Your task to perform on an android device: Search for "logitech g933" on ebay.com, select the first entry, and add it to the cart. Image 0: 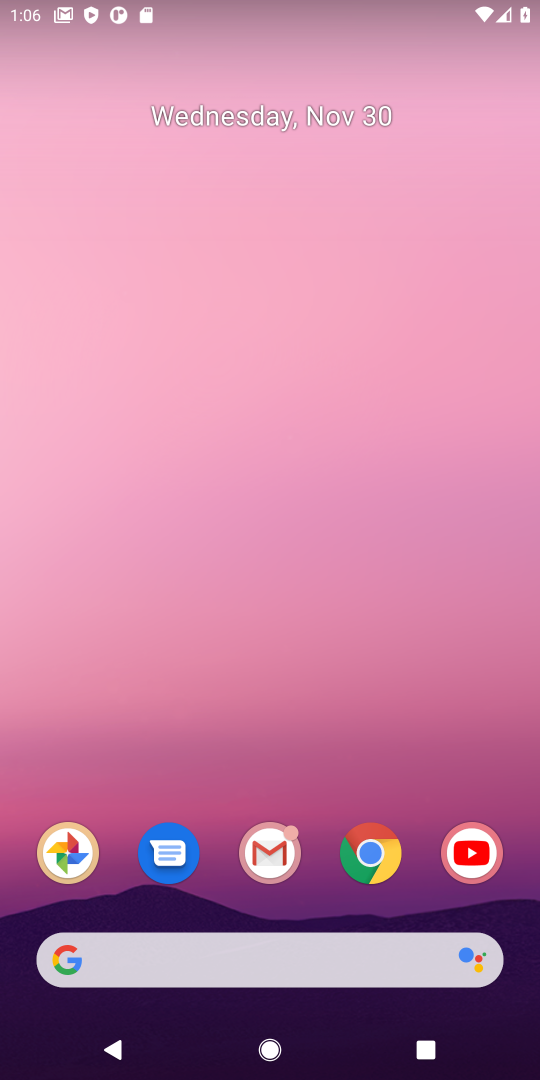
Step 0: click (374, 850)
Your task to perform on an android device: Search for "logitech g933" on ebay.com, select the first entry, and add it to the cart. Image 1: 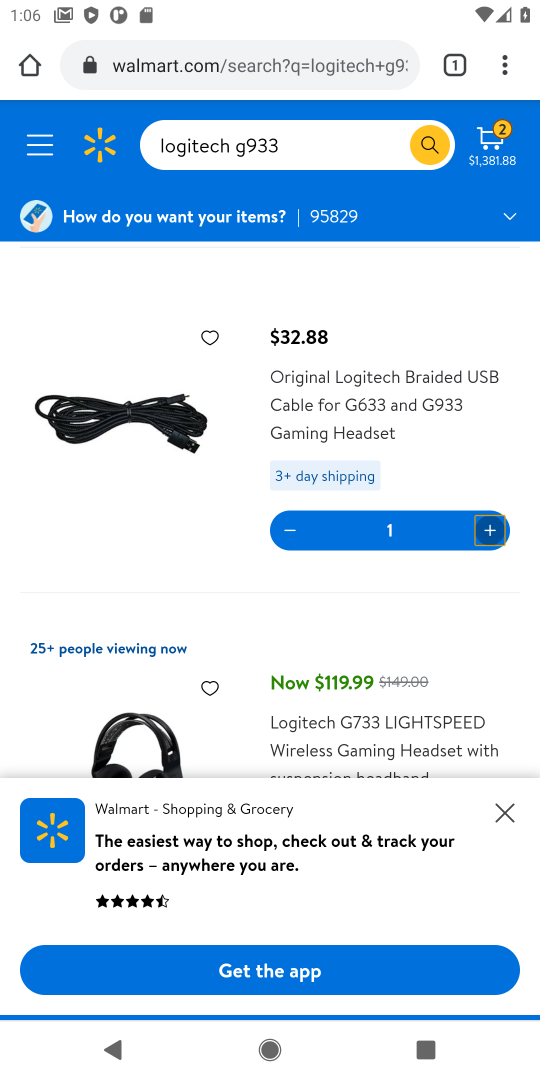
Step 1: click (238, 68)
Your task to perform on an android device: Search for "logitech g933" on ebay.com, select the first entry, and add it to the cart. Image 2: 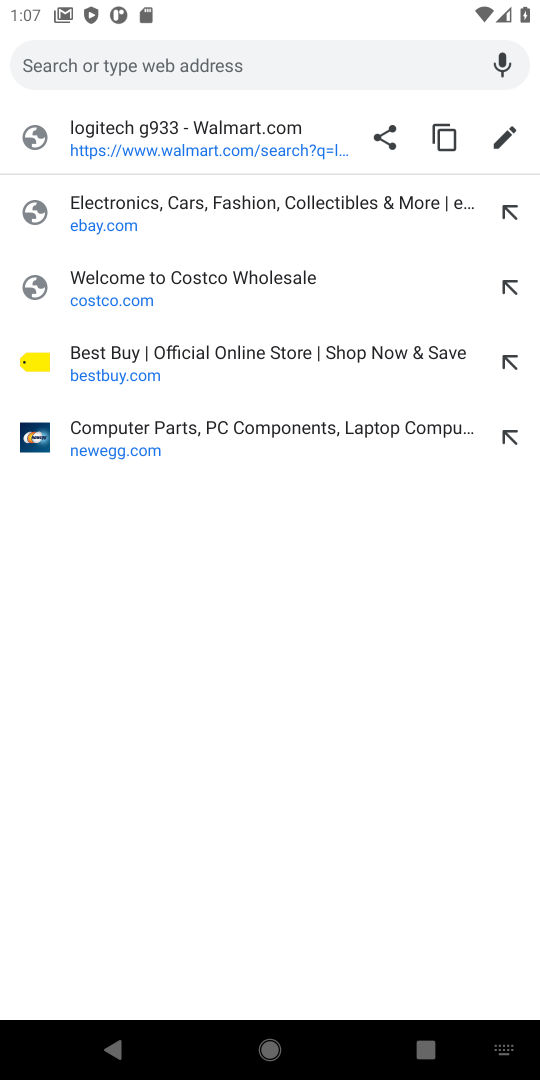
Step 2: click (115, 213)
Your task to perform on an android device: Search for "logitech g933" on ebay.com, select the first entry, and add it to the cart. Image 3: 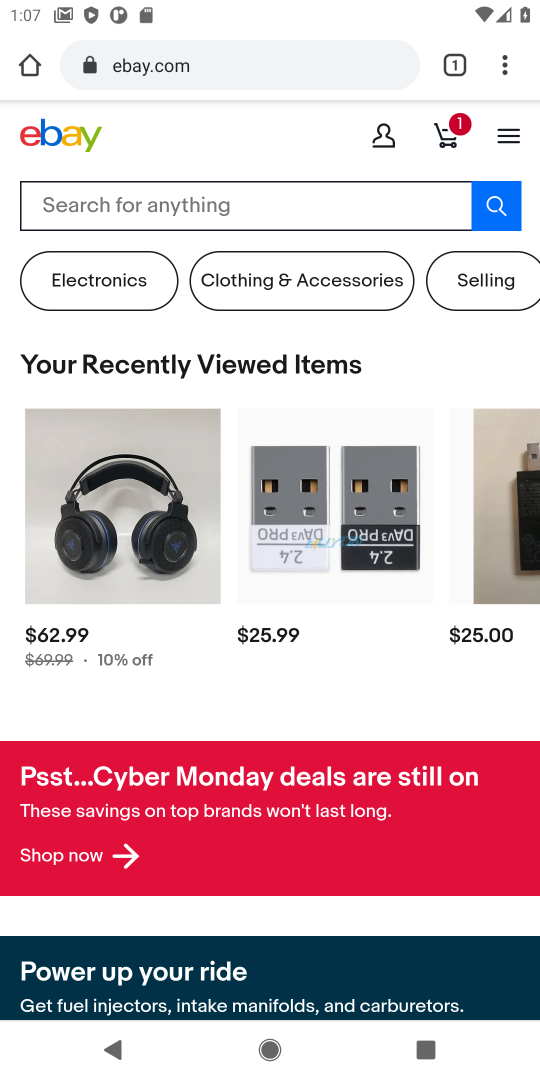
Step 3: click (76, 199)
Your task to perform on an android device: Search for "logitech g933" on ebay.com, select the first entry, and add it to the cart. Image 4: 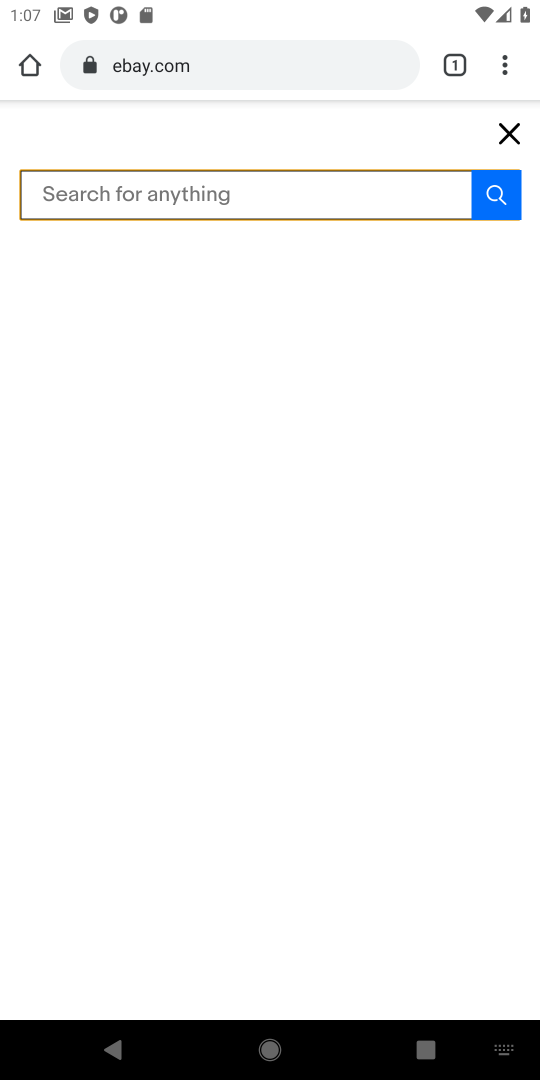
Step 4: type "logitech g933"
Your task to perform on an android device: Search for "logitech g933" on ebay.com, select the first entry, and add it to the cart. Image 5: 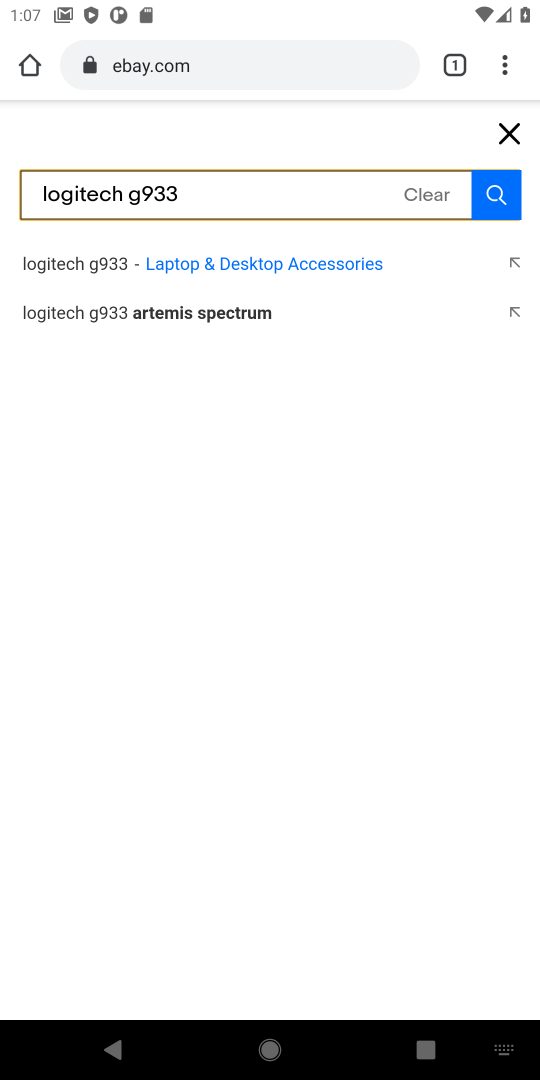
Step 5: click (500, 200)
Your task to perform on an android device: Search for "logitech g933" on ebay.com, select the first entry, and add it to the cart. Image 6: 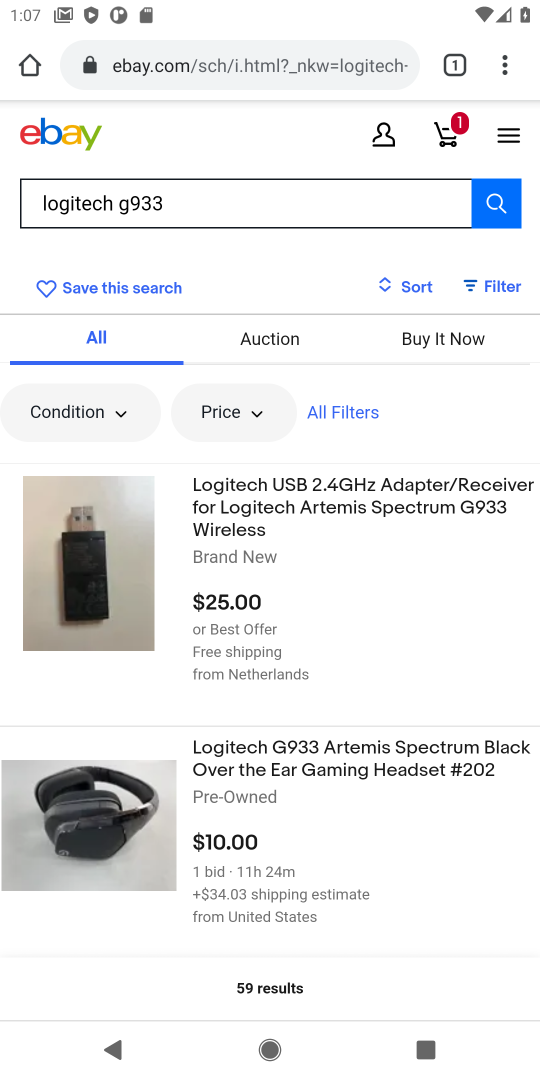
Step 6: click (200, 510)
Your task to perform on an android device: Search for "logitech g933" on ebay.com, select the first entry, and add it to the cart. Image 7: 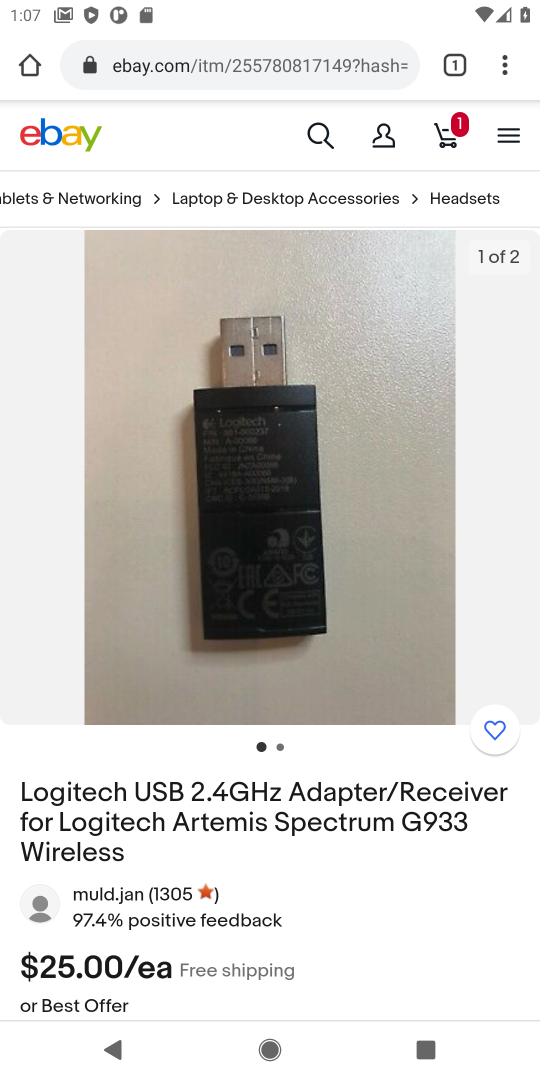
Step 7: drag from (170, 855) to (199, 332)
Your task to perform on an android device: Search for "logitech g933" on ebay.com, select the first entry, and add it to the cart. Image 8: 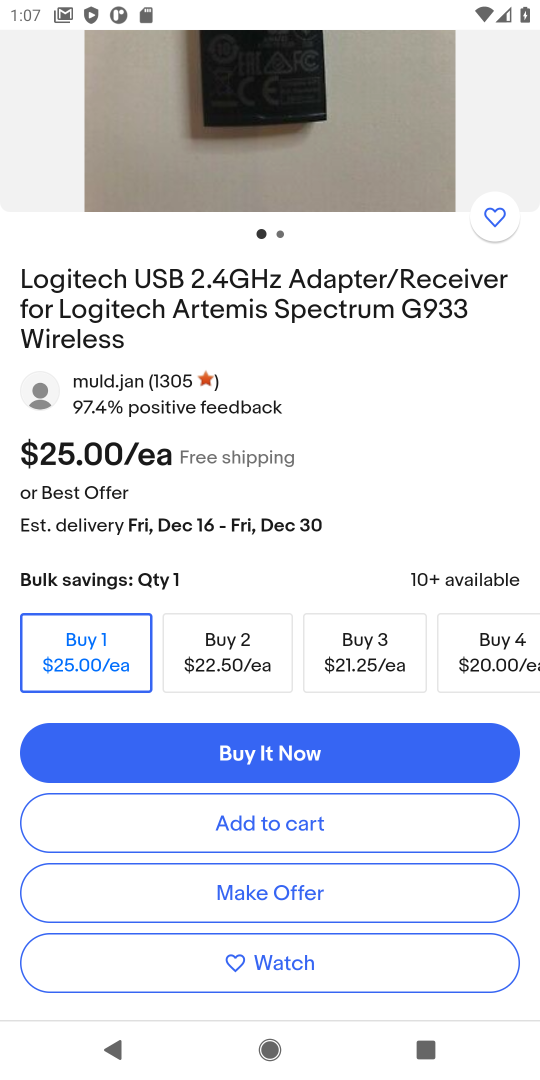
Step 8: click (240, 814)
Your task to perform on an android device: Search for "logitech g933" on ebay.com, select the first entry, and add it to the cart. Image 9: 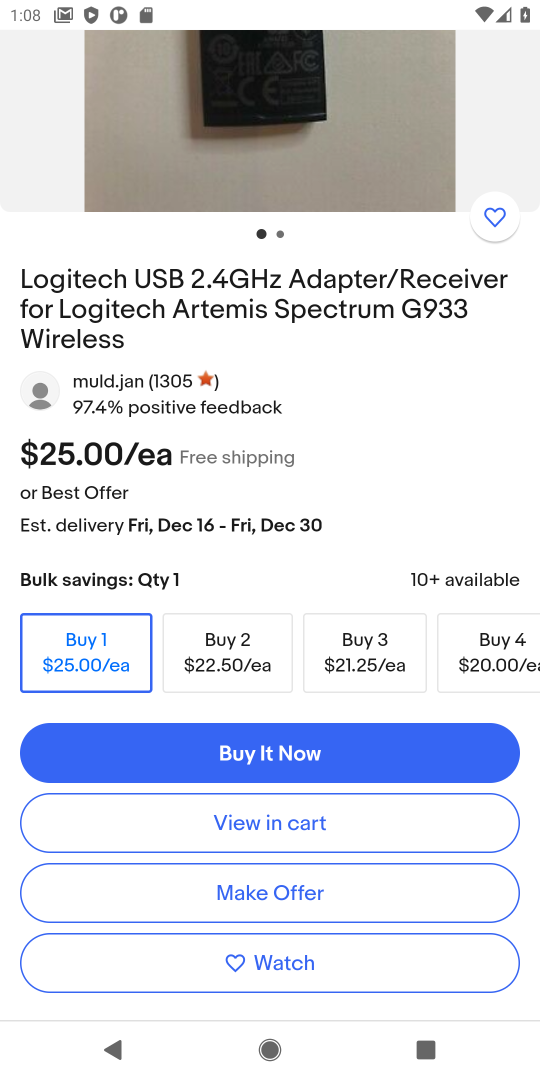
Step 9: task complete